Your task to perform on an android device: Search for flights from Sydney to Zurich Image 0: 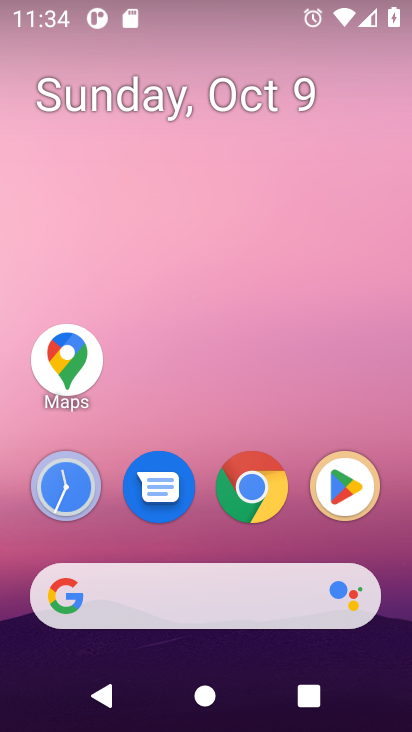
Step 0: click (234, 70)
Your task to perform on an android device: Search for flights from Sydney to Zurich Image 1: 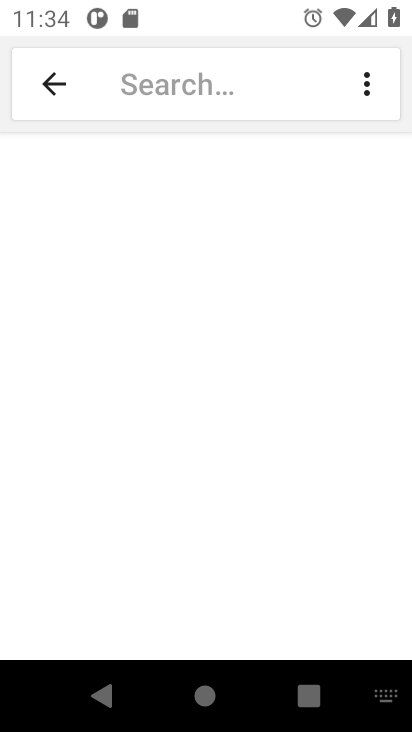
Step 1: press home button
Your task to perform on an android device: Search for flights from Sydney to Zurich Image 2: 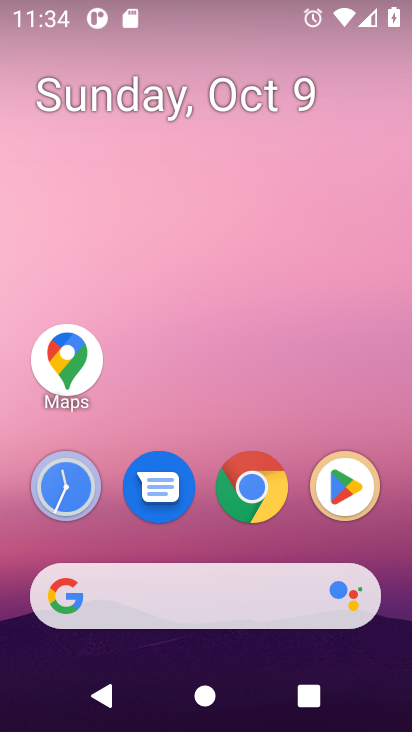
Step 2: drag from (217, 557) to (270, 83)
Your task to perform on an android device: Search for flights from Sydney to Zurich Image 3: 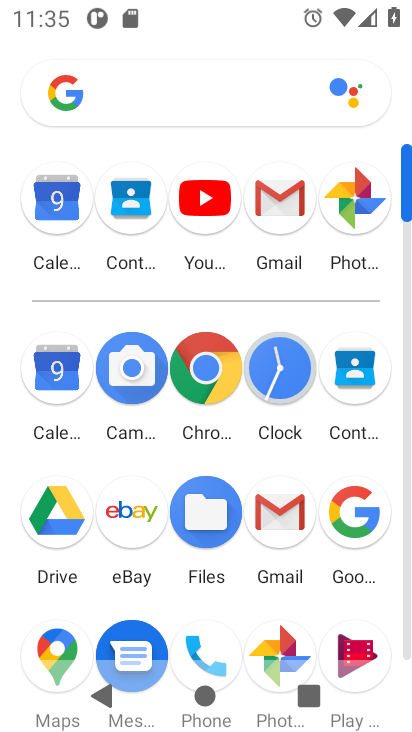
Step 3: click (338, 510)
Your task to perform on an android device: Search for flights from Sydney to Zurich Image 4: 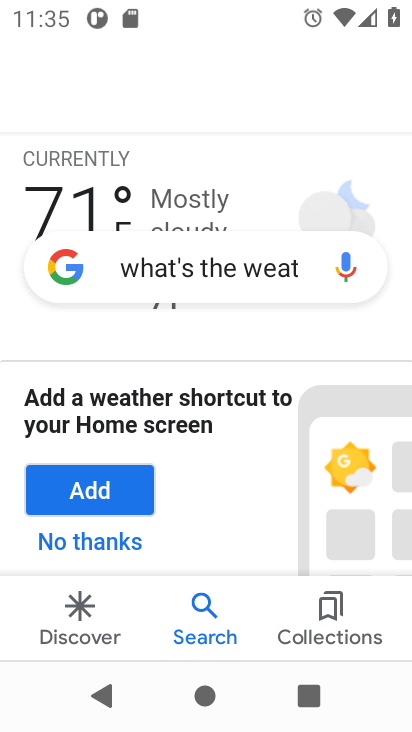
Step 4: click (223, 268)
Your task to perform on an android device: Search for flights from Sydney to Zurich Image 5: 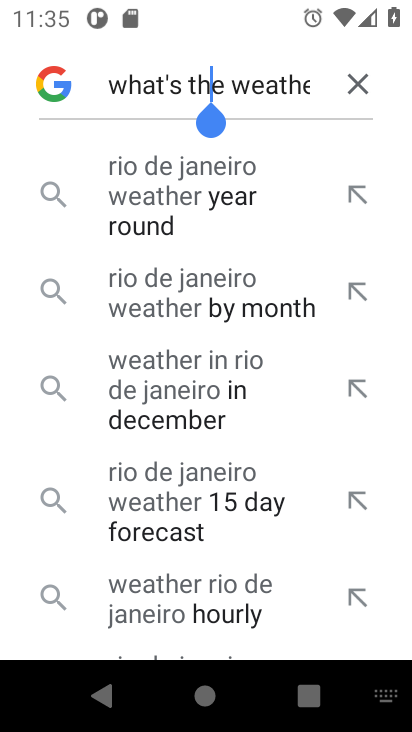
Step 5: click (362, 81)
Your task to perform on an android device: Search for flights from Sydney to Zurich Image 6: 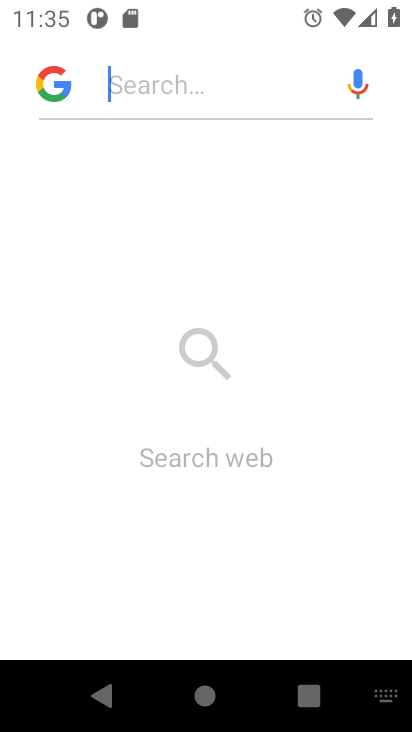
Step 6: type " flights from Sydney to Zurich"
Your task to perform on an android device: Search for flights from Sydney to Zurich Image 7: 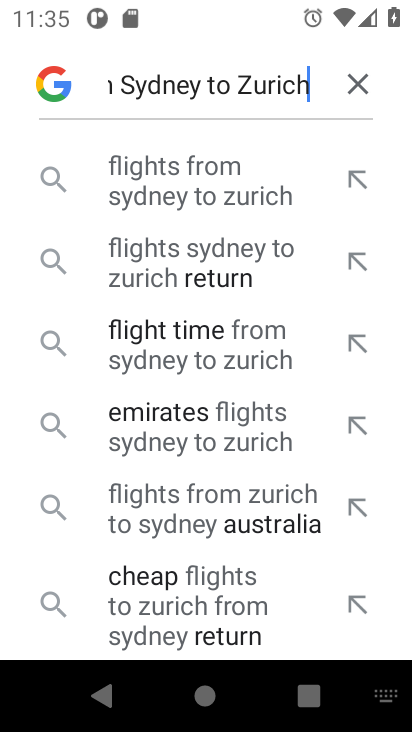
Step 7: type ""
Your task to perform on an android device: Search for flights from Sydney to Zurich Image 8: 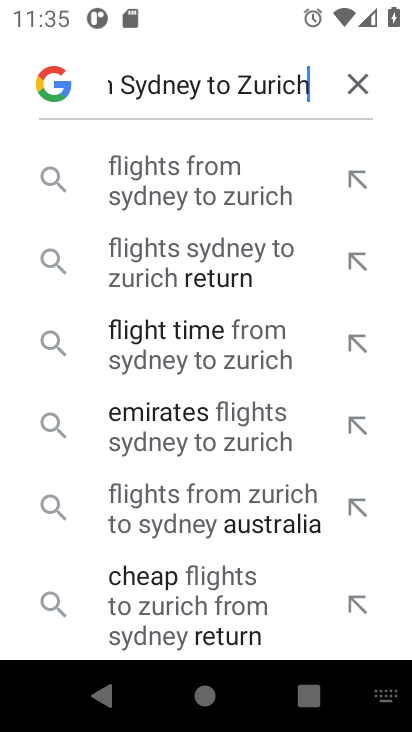
Step 8: click (198, 169)
Your task to perform on an android device: Search for flights from Sydney to Zurich Image 9: 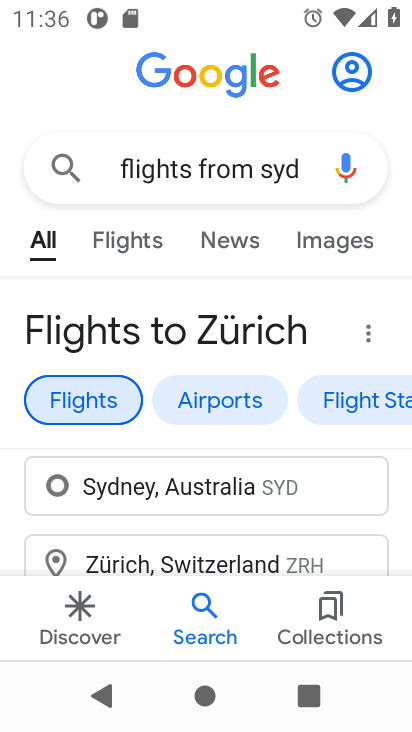
Step 9: task complete